Your task to perform on an android device: visit the assistant section in the google photos Image 0: 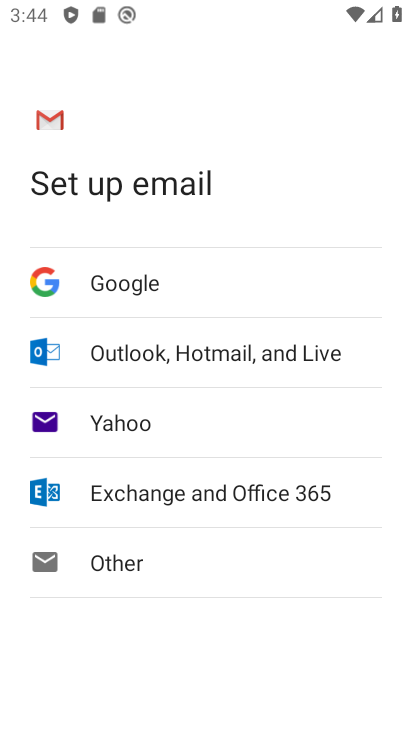
Step 0: press home button
Your task to perform on an android device: visit the assistant section in the google photos Image 1: 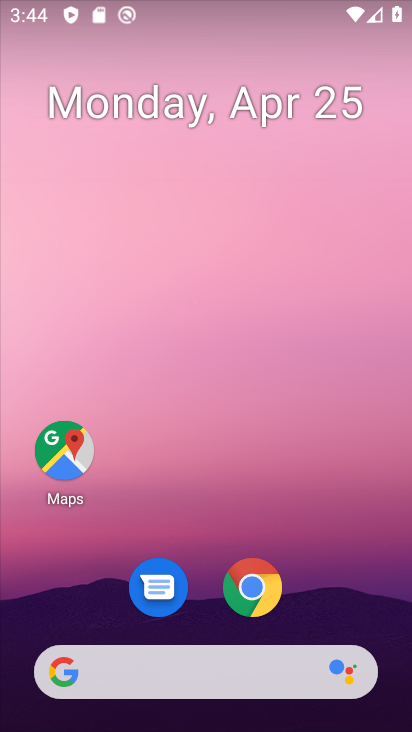
Step 1: drag from (198, 601) to (242, 138)
Your task to perform on an android device: visit the assistant section in the google photos Image 2: 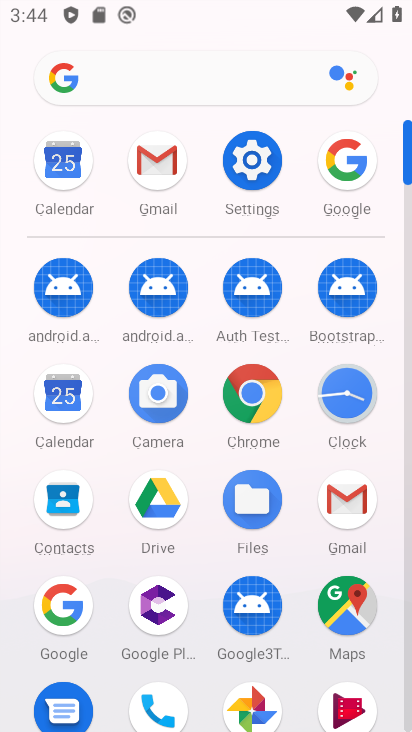
Step 2: click (255, 708)
Your task to perform on an android device: visit the assistant section in the google photos Image 3: 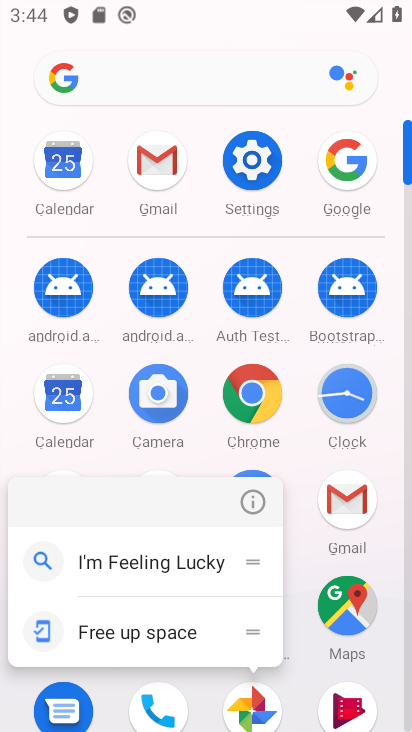
Step 3: click (255, 708)
Your task to perform on an android device: visit the assistant section in the google photos Image 4: 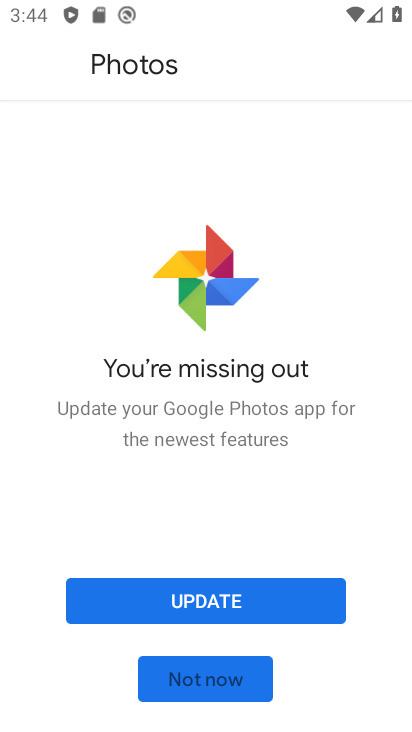
Step 4: click (224, 673)
Your task to perform on an android device: visit the assistant section in the google photos Image 5: 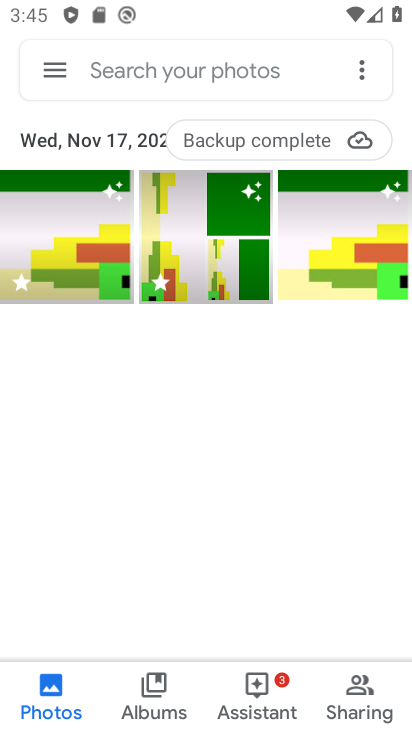
Step 5: click (257, 698)
Your task to perform on an android device: visit the assistant section in the google photos Image 6: 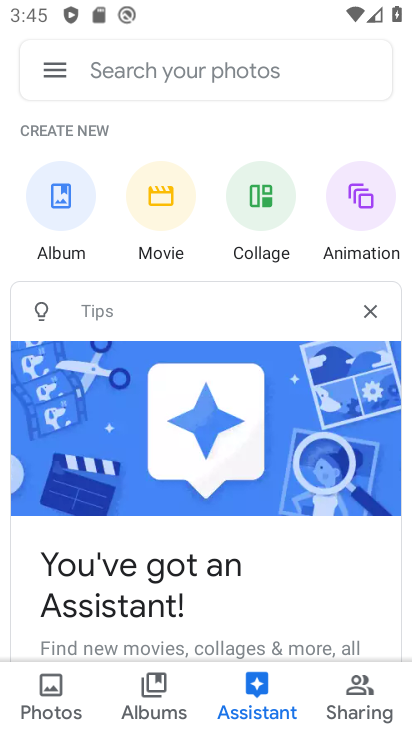
Step 6: task complete